Your task to perform on an android device: Go to ESPN.com Image 0: 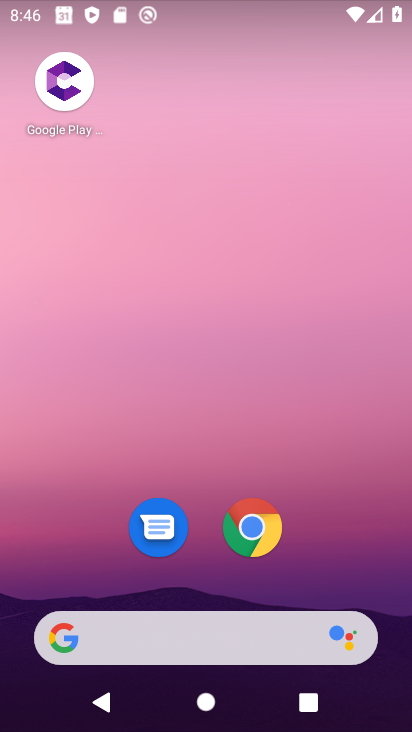
Step 0: click (245, 532)
Your task to perform on an android device: Go to ESPN.com Image 1: 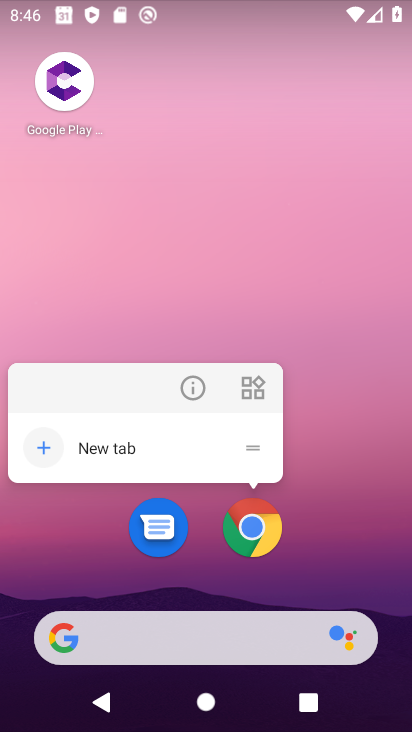
Step 1: click (250, 529)
Your task to perform on an android device: Go to ESPN.com Image 2: 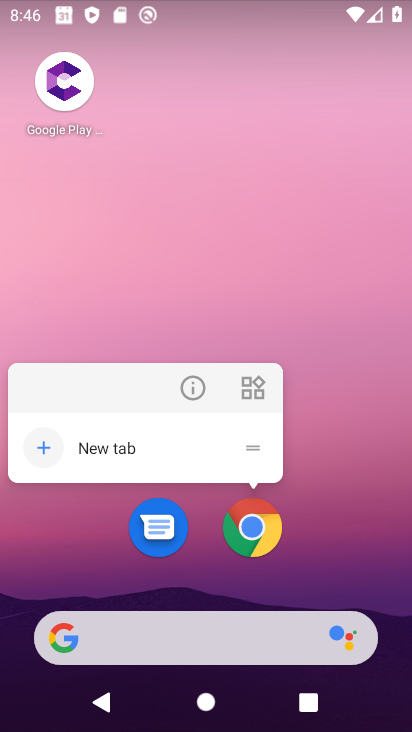
Step 2: click (251, 531)
Your task to perform on an android device: Go to ESPN.com Image 3: 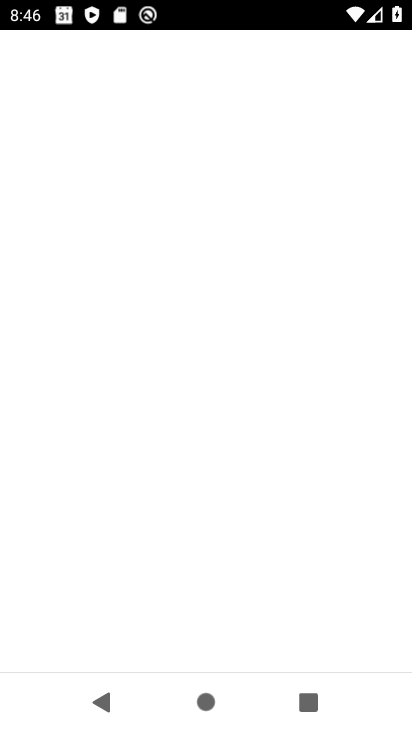
Step 3: click (253, 538)
Your task to perform on an android device: Go to ESPN.com Image 4: 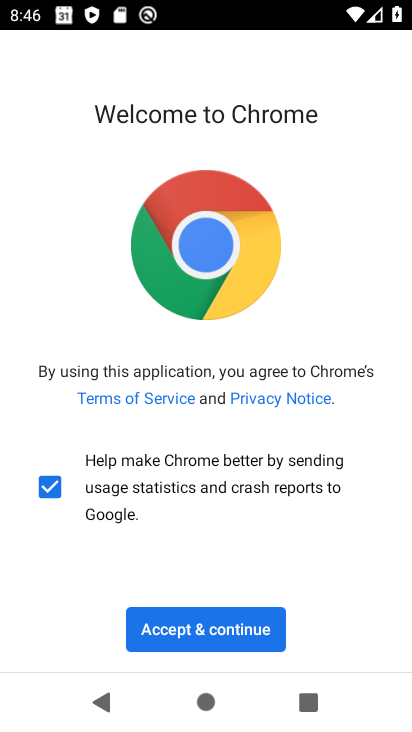
Step 4: click (261, 630)
Your task to perform on an android device: Go to ESPN.com Image 5: 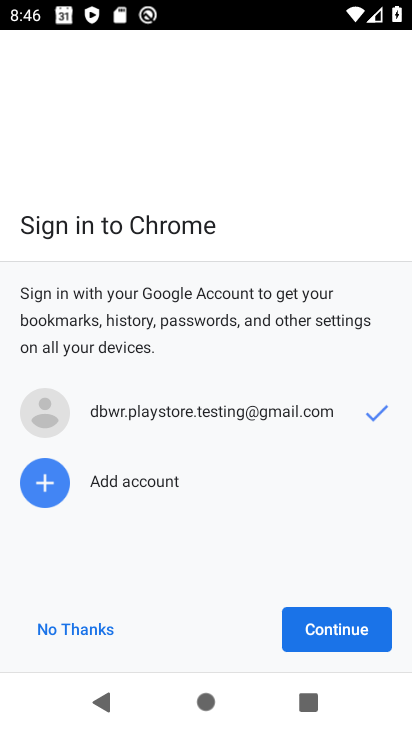
Step 5: click (350, 650)
Your task to perform on an android device: Go to ESPN.com Image 6: 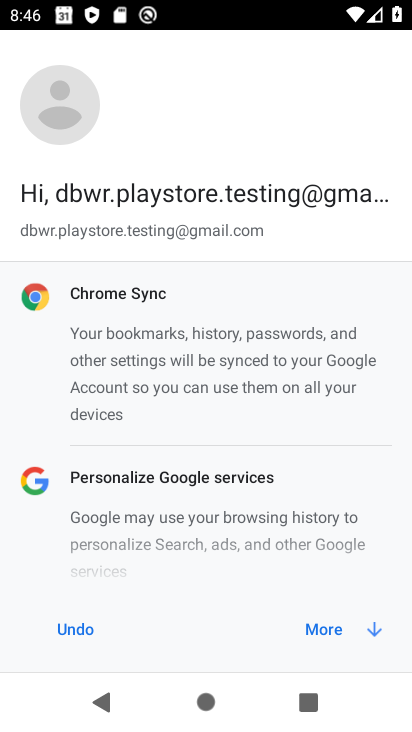
Step 6: click (346, 640)
Your task to perform on an android device: Go to ESPN.com Image 7: 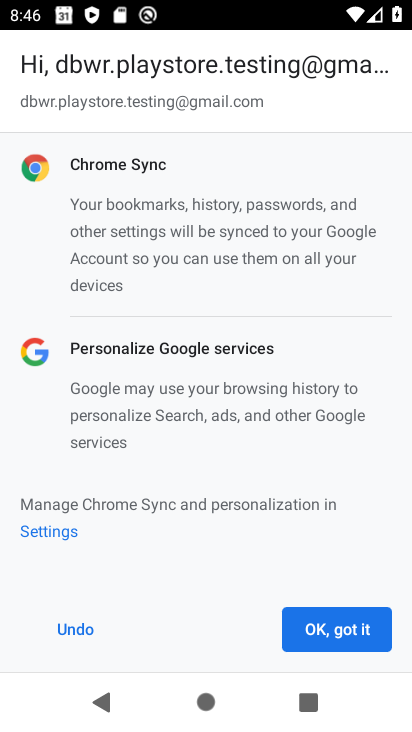
Step 7: click (346, 640)
Your task to perform on an android device: Go to ESPN.com Image 8: 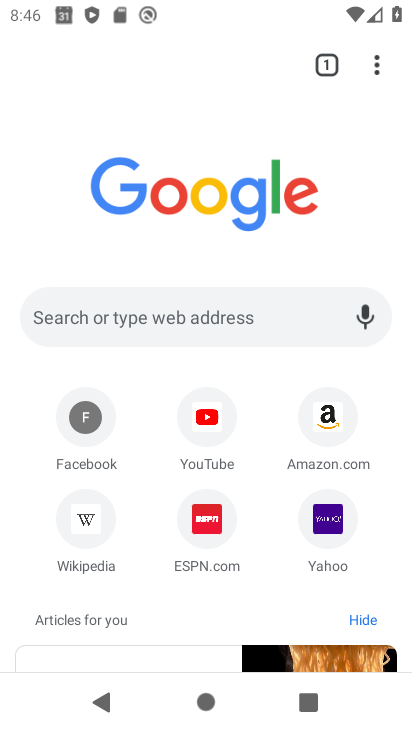
Step 8: click (200, 539)
Your task to perform on an android device: Go to ESPN.com Image 9: 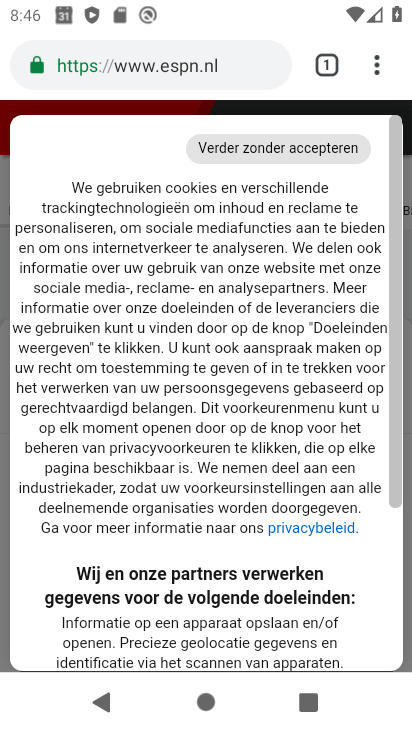
Step 9: drag from (220, 610) to (305, 190)
Your task to perform on an android device: Go to ESPN.com Image 10: 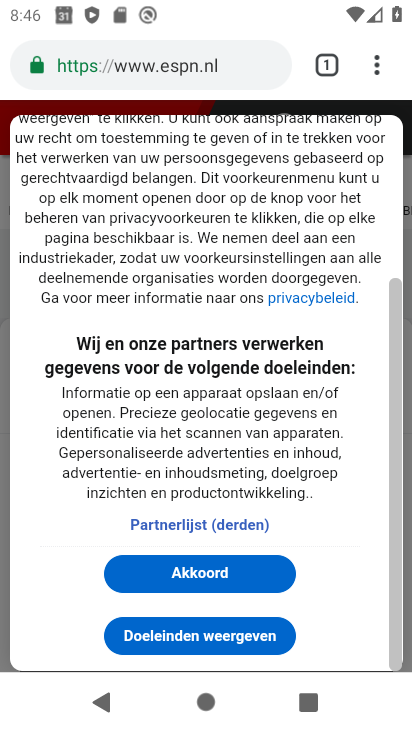
Step 10: click (210, 585)
Your task to perform on an android device: Go to ESPN.com Image 11: 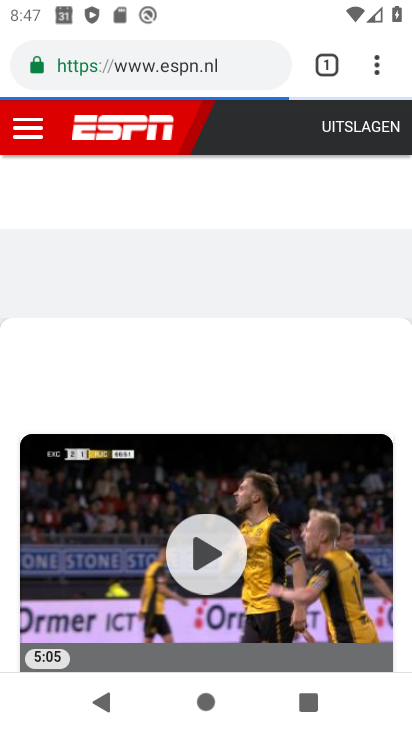
Step 11: task complete